Your task to perform on an android device: open app "LinkedIn" (install if not already installed) Image 0: 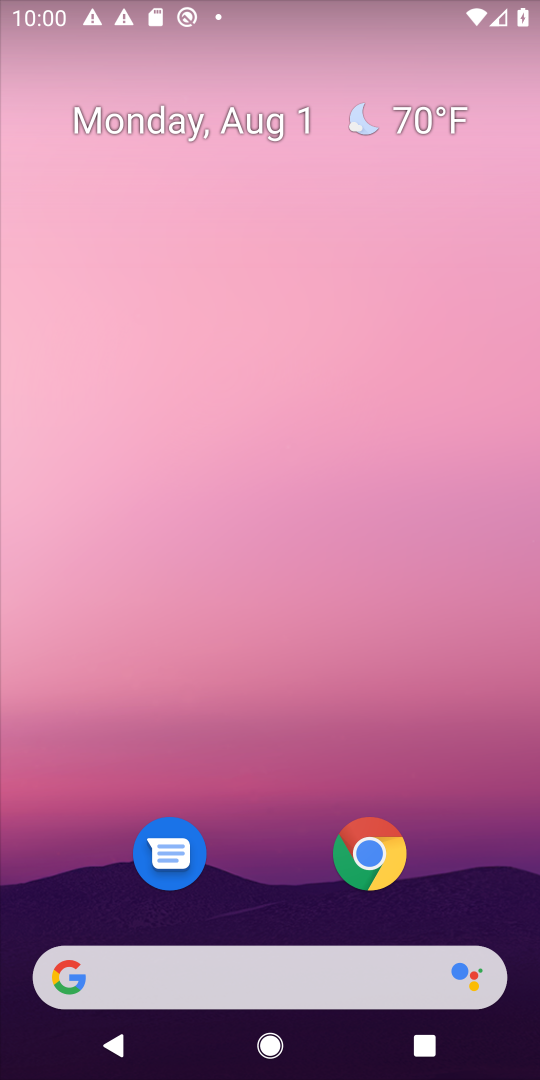
Step 0: drag from (261, 818) to (263, 183)
Your task to perform on an android device: open app "LinkedIn" (install if not already installed) Image 1: 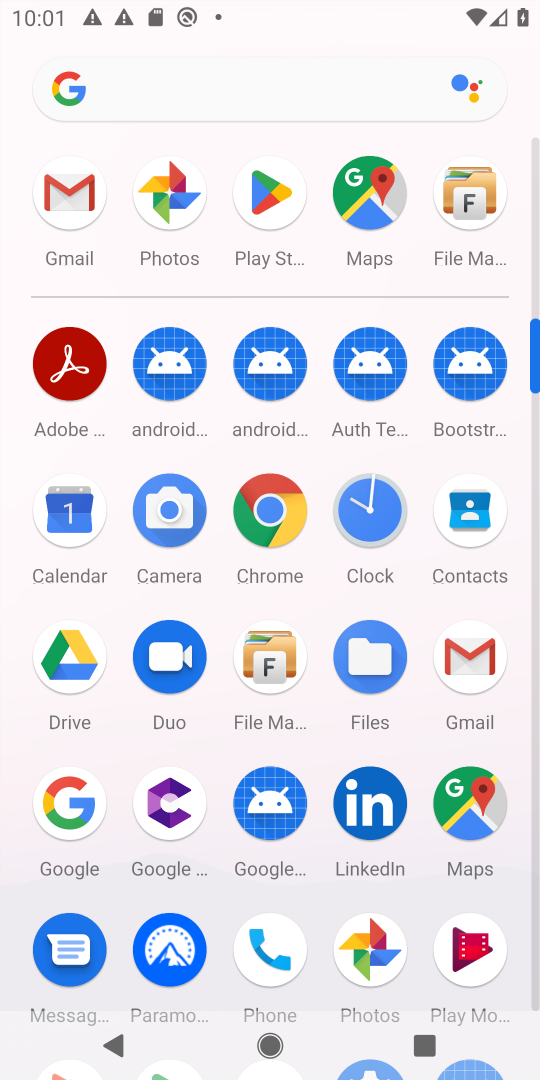
Step 1: drag from (213, 869) to (218, 356)
Your task to perform on an android device: open app "LinkedIn" (install if not already installed) Image 2: 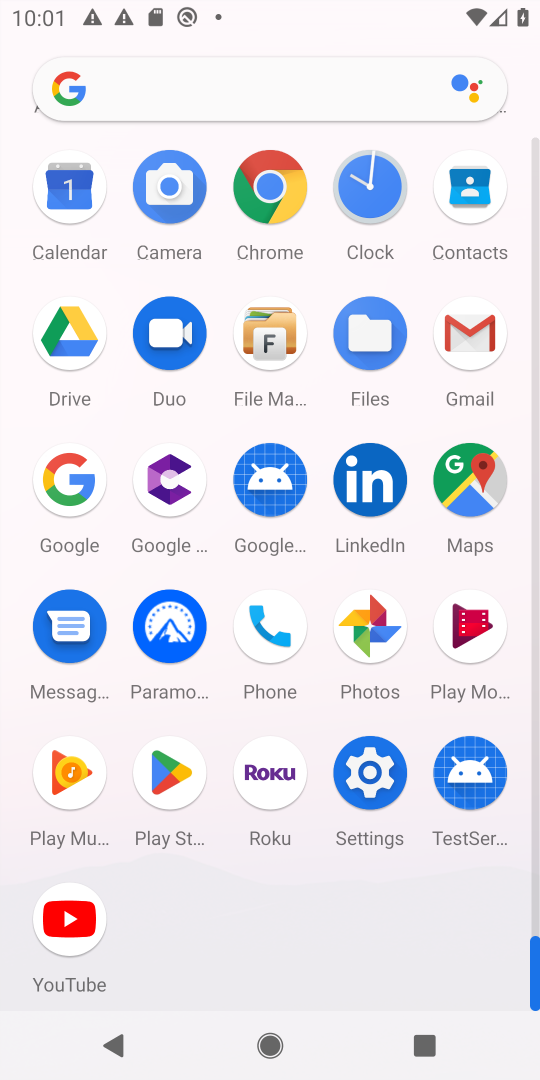
Step 2: drag from (223, 273) to (271, 949)
Your task to perform on an android device: open app "LinkedIn" (install if not already installed) Image 3: 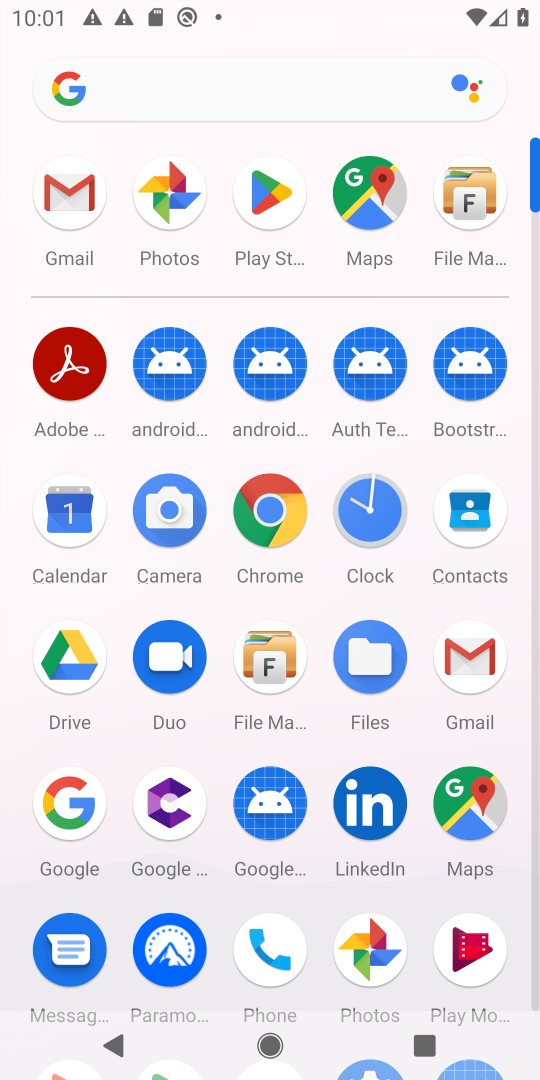
Step 3: click (267, 190)
Your task to perform on an android device: open app "LinkedIn" (install if not already installed) Image 4: 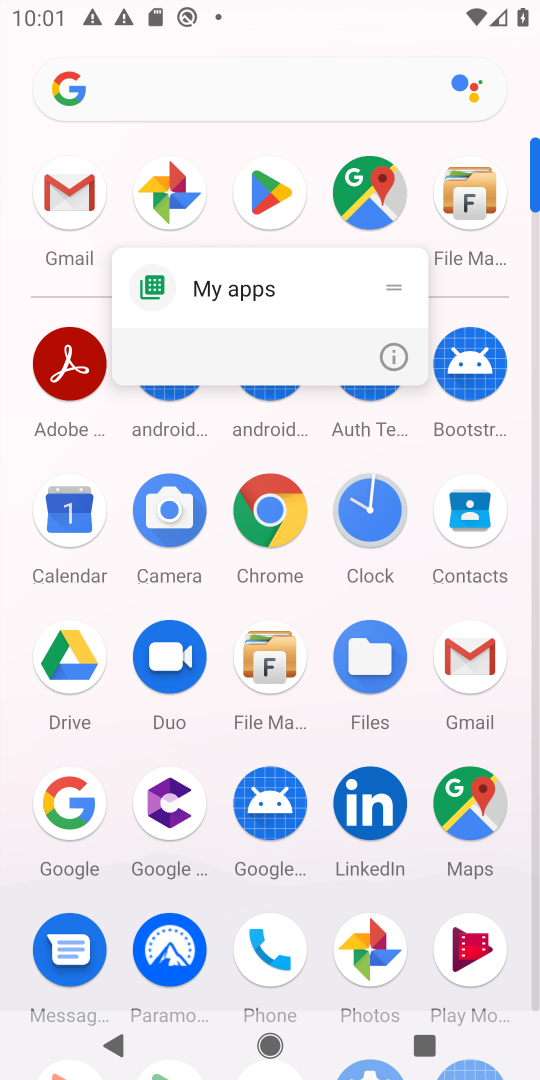
Step 4: click (396, 352)
Your task to perform on an android device: open app "LinkedIn" (install if not already installed) Image 5: 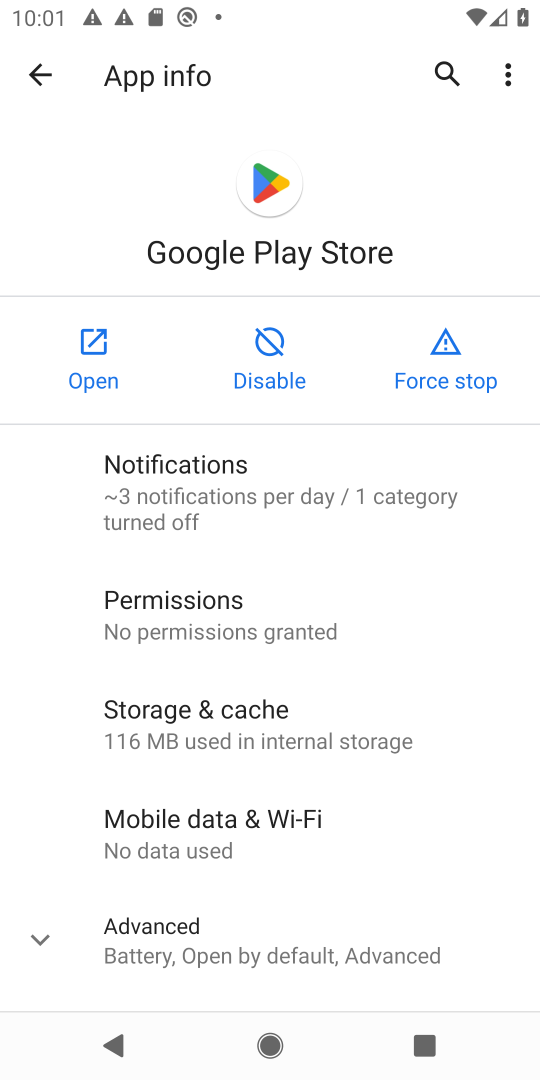
Step 5: click (97, 355)
Your task to perform on an android device: open app "LinkedIn" (install if not already installed) Image 6: 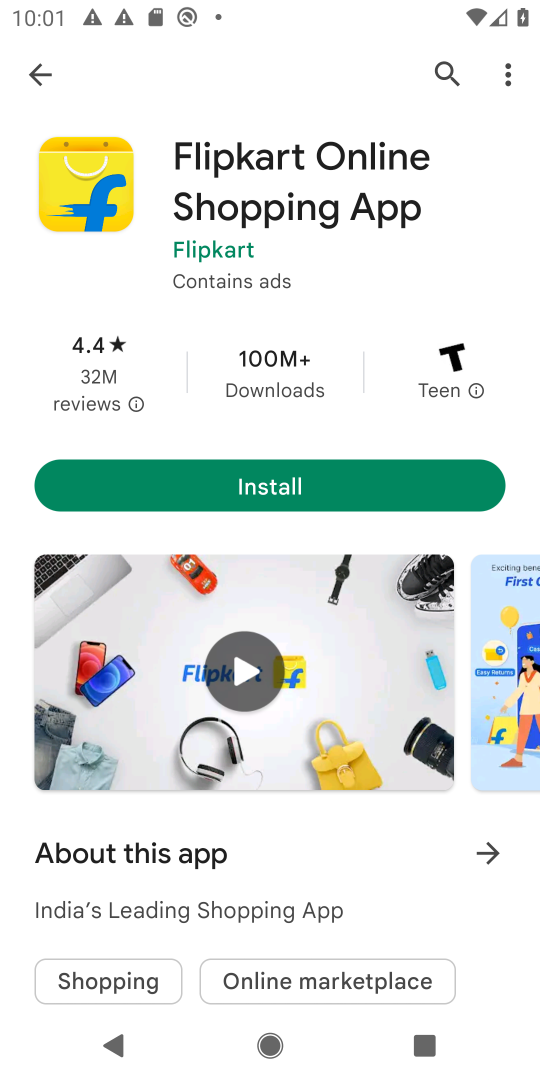
Step 6: click (452, 82)
Your task to perform on an android device: open app "LinkedIn" (install if not already installed) Image 7: 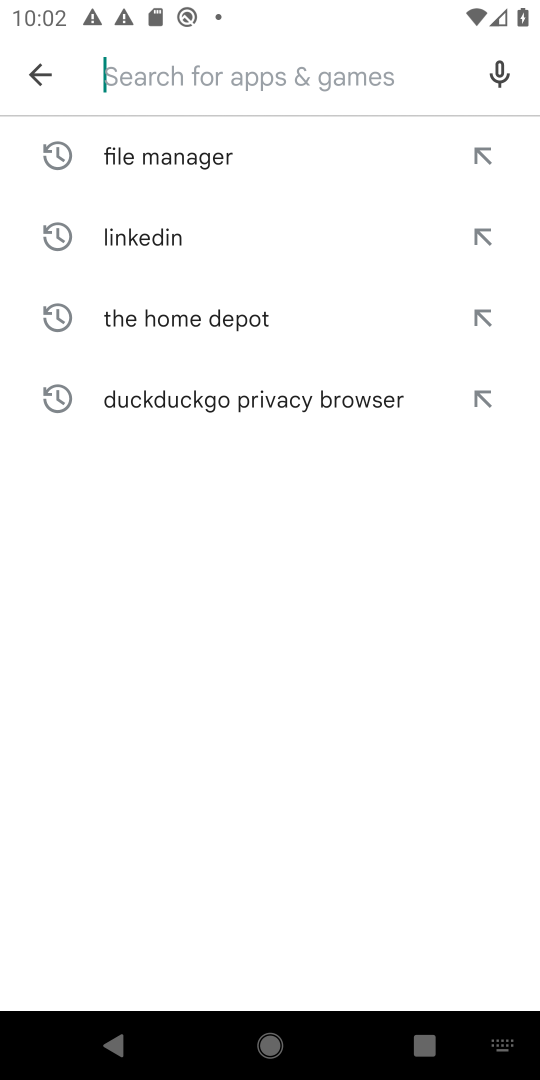
Step 7: type "LinkedIn"
Your task to perform on an android device: open app "LinkedIn" (install if not already installed) Image 8: 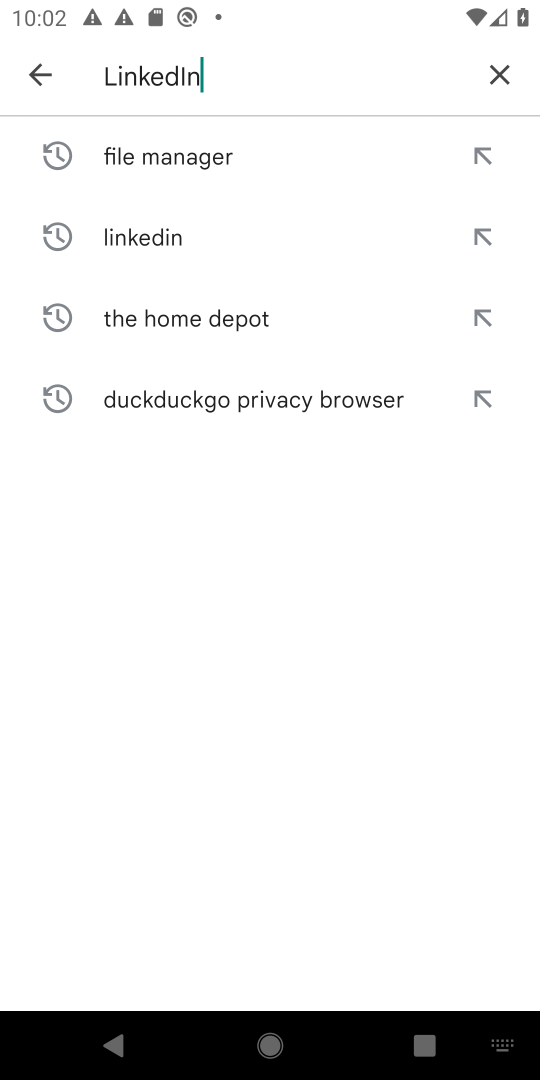
Step 8: type ""
Your task to perform on an android device: open app "LinkedIn" (install if not already installed) Image 9: 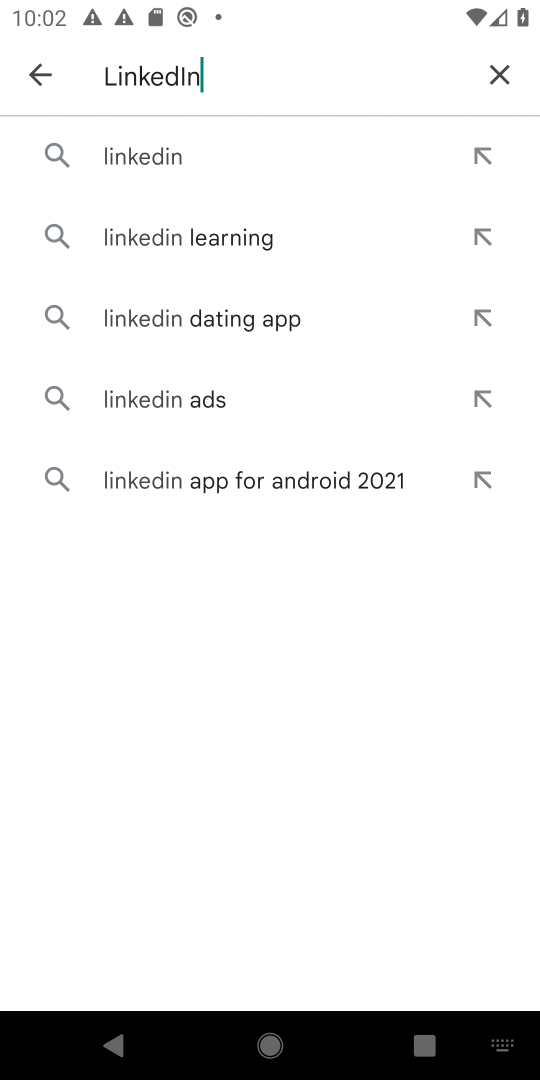
Step 9: click (186, 153)
Your task to perform on an android device: open app "LinkedIn" (install if not already installed) Image 10: 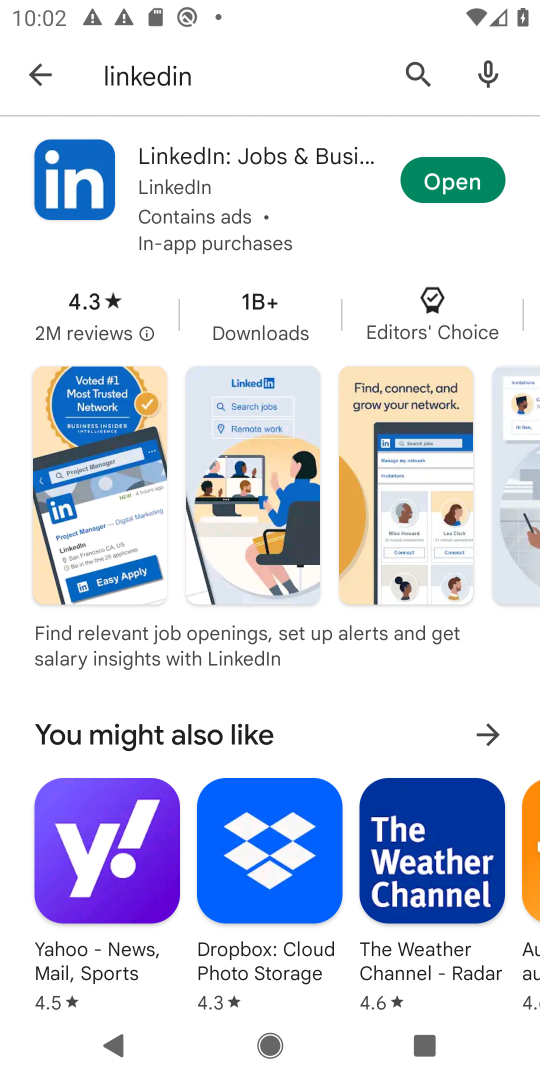
Step 10: click (168, 166)
Your task to perform on an android device: open app "LinkedIn" (install if not already installed) Image 11: 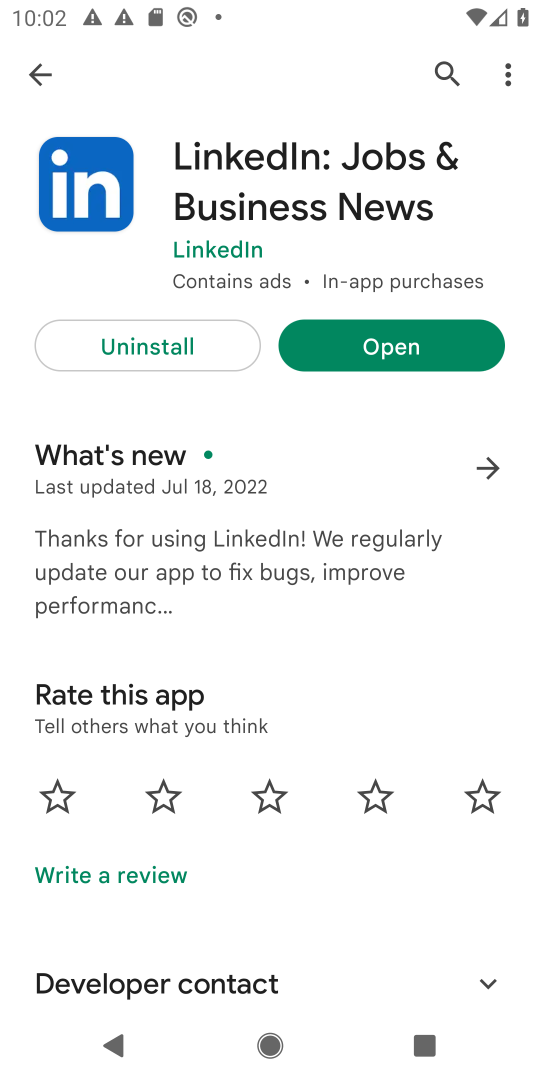
Step 11: click (408, 365)
Your task to perform on an android device: open app "LinkedIn" (install if not already installed) Image 12: 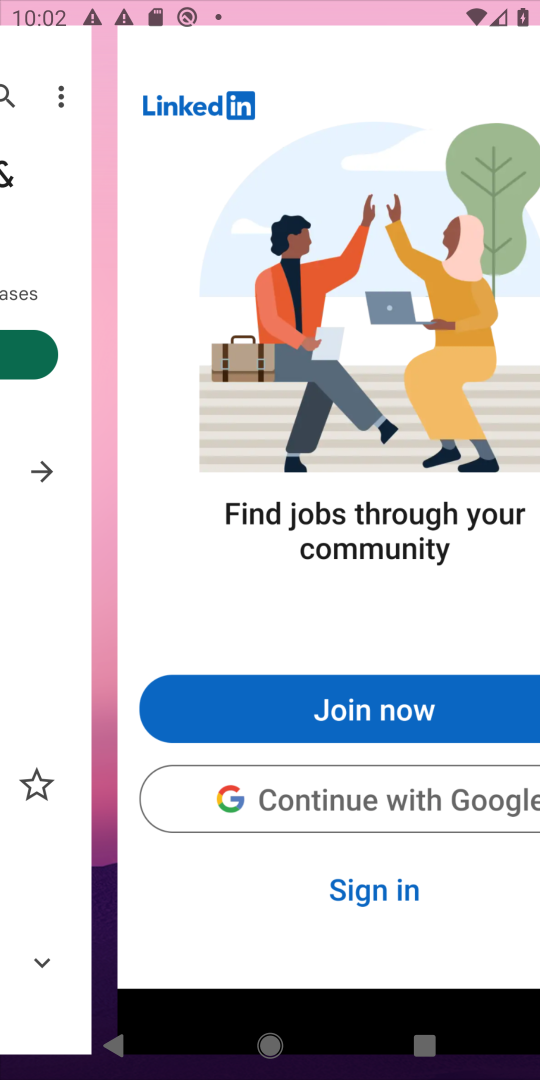
Step 12: task complete